Your task to perform on an android device: turn off improve location accuracy Image 0: 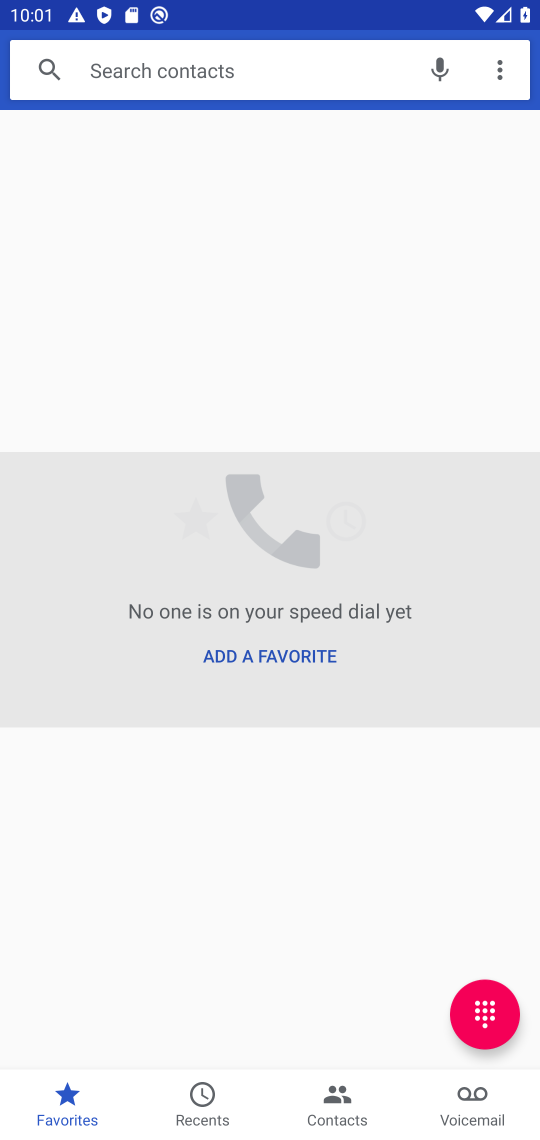
Step 0: press home button
Your task to perform on an android device: turn off improve location accuracy Image 1: 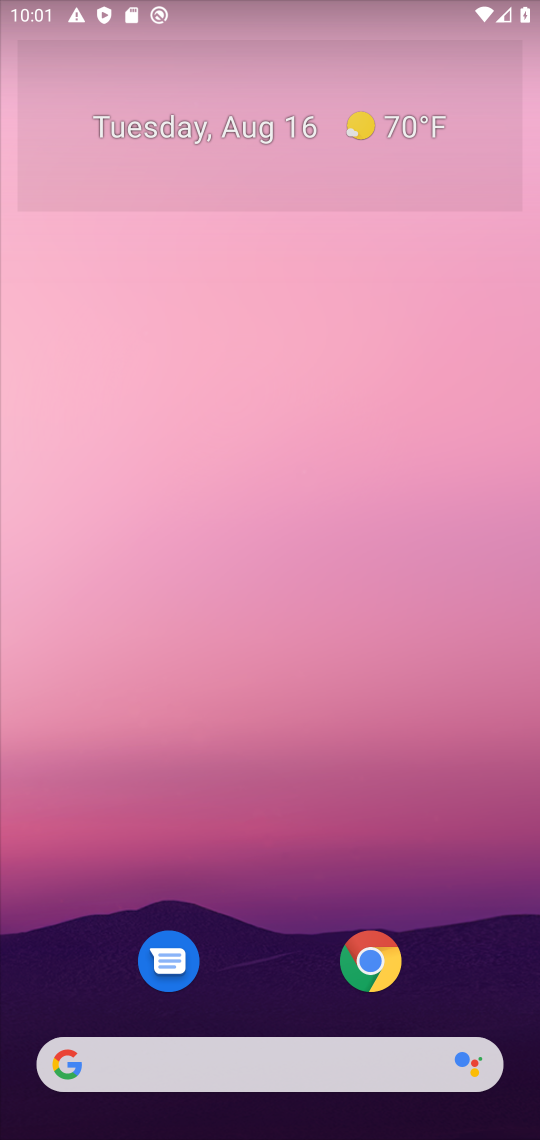
Step 1: drag from (246, 850) to (253, 267)
Your task to perform on an android device: turn off improve location accuracy Image 2: 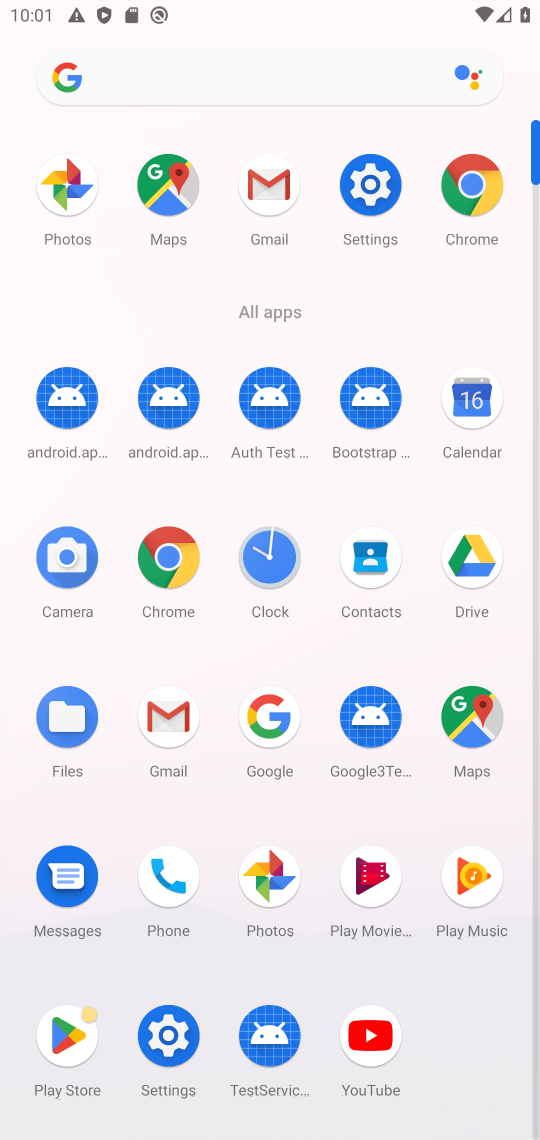
Step 2: click (368, 186)
Your task to perform on an android device: turn off improve location accuracy Image 3: 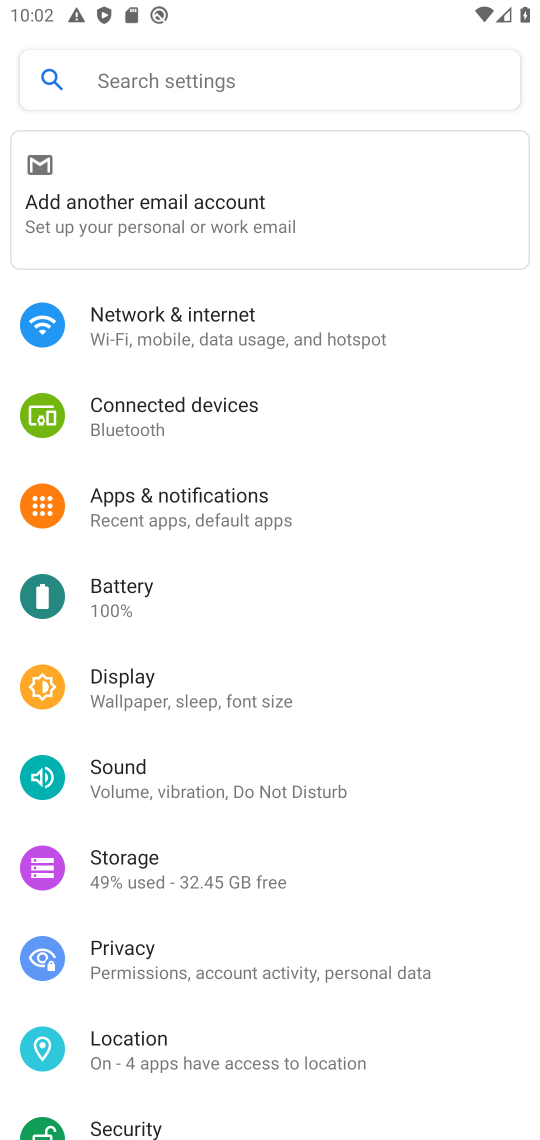
Step 3: drag from (300, 854) to (298, 589)
Your task to perform on an android device: turn off improve location accuracy Image 4: 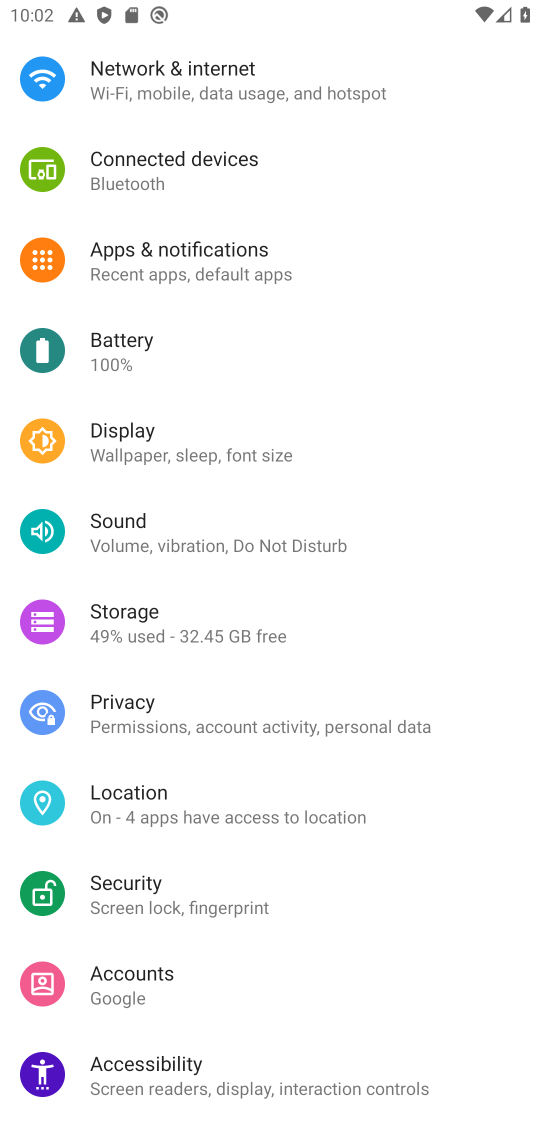
Step 4: click (184, 802)
Your task to perform on an android device: turn off improve location accuracy Image 5: 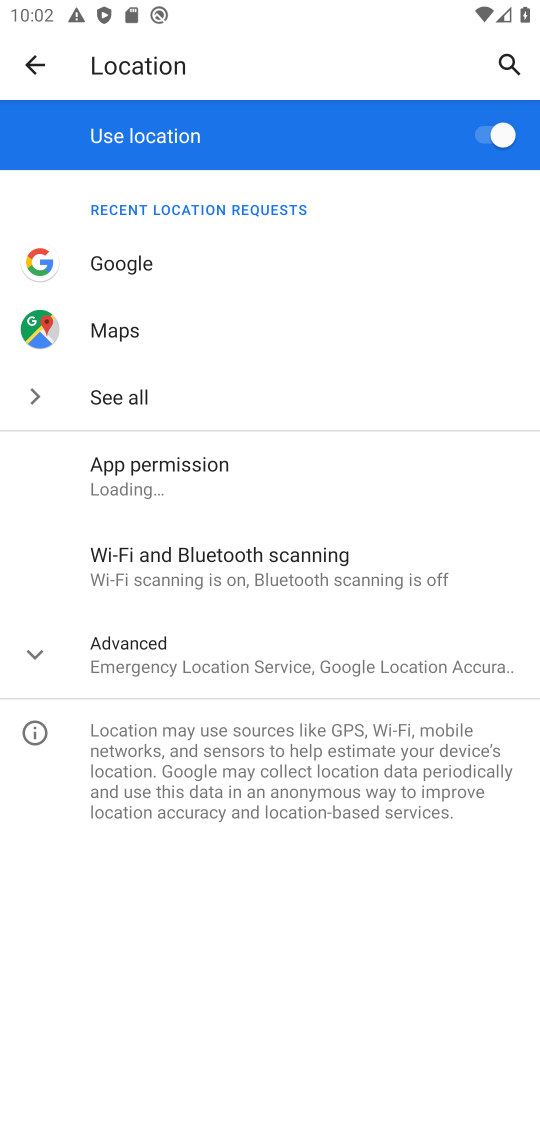
Step 5: task complete